Your task to perform on an android device: turn off translation in the chrome app Image 0: 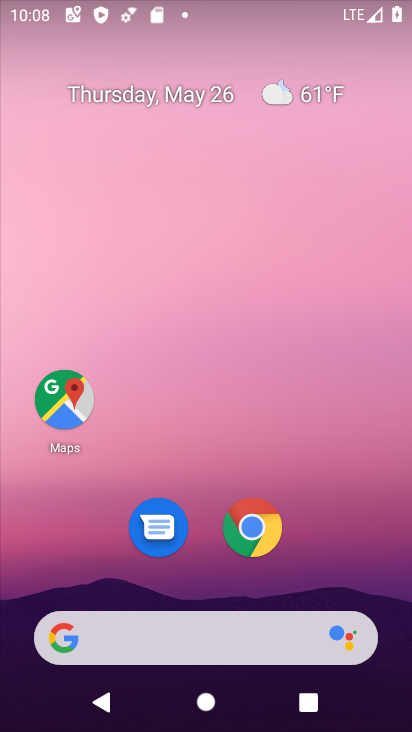
Step 0: click (260, 520)
Your task to perform on an android device: turn off translation in the chrome app Image 1: 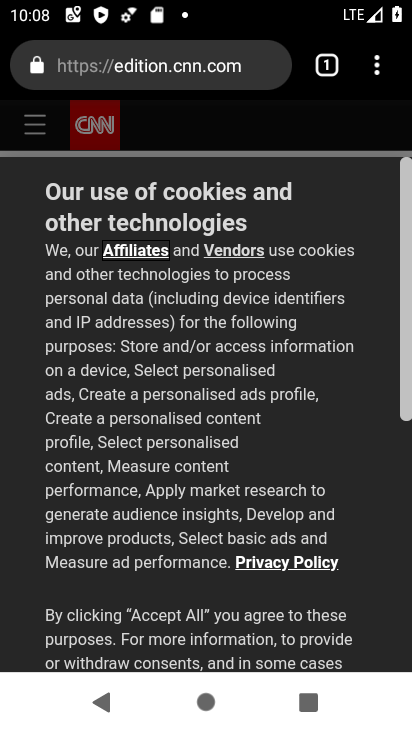
Step 1: drag from (380, 67) to (165, 578)
Your task to perform on an android device: turn off translation in the chrome app Image 2: 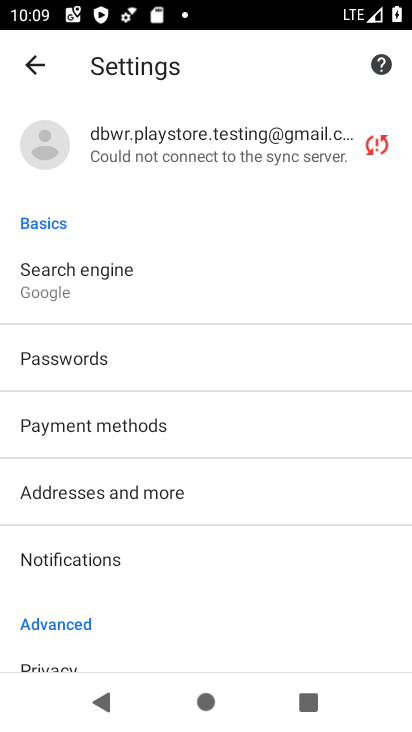
Step 2: drag from (160, 586) to (197, 78)
Your task to perform on an android device: turn off translation in the chrome app Image 3: 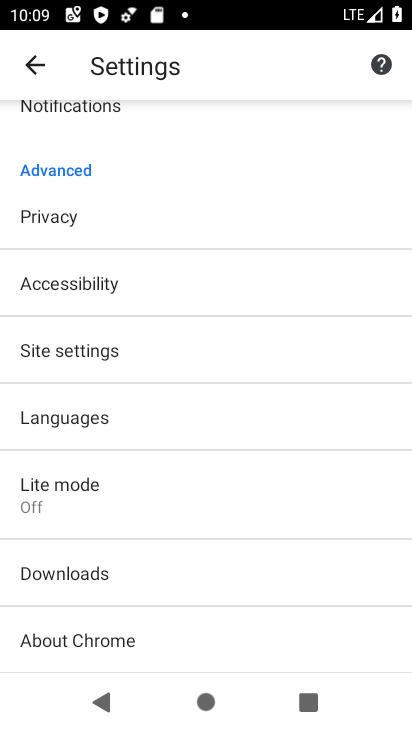
Step 3: click (141, 414)
Your task to perform on an android device: turn off translation in the chrome app Image 4: 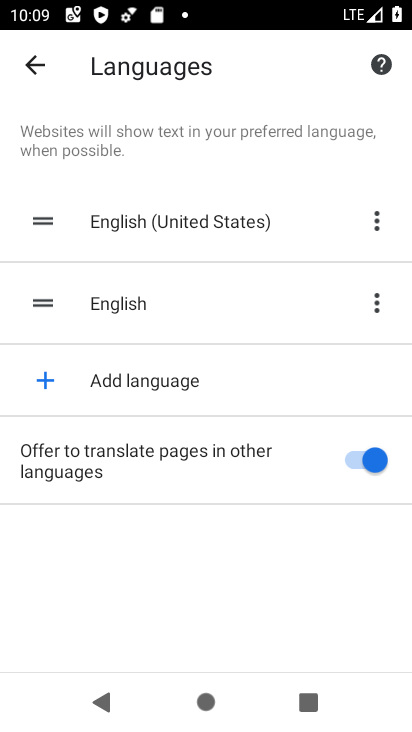
Step 4: click (381, 455)
Your task to perform on an android device: turn off translation in the chrome app Image 5: 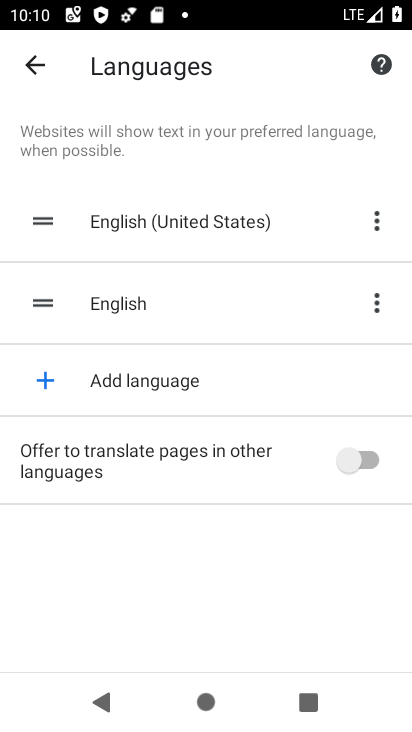
Step 5: task complete